Your task to perform on an android device: delete a single message in the gmail app Image 0: 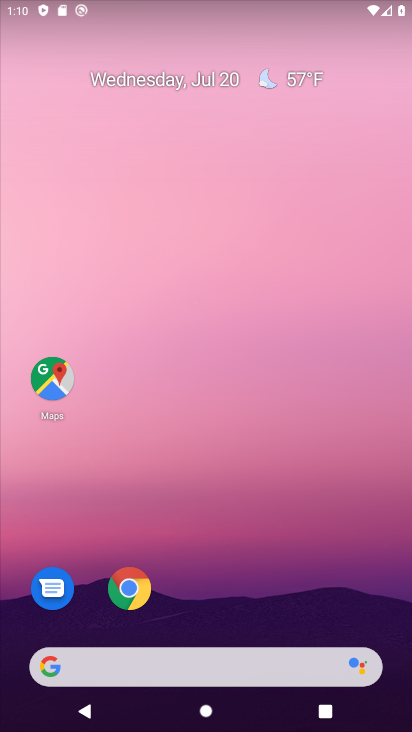
Step 0: drag from (14, 508) to (233, 125)
Your task to perform on an android device: delete a single message in the gmail app Image 1: 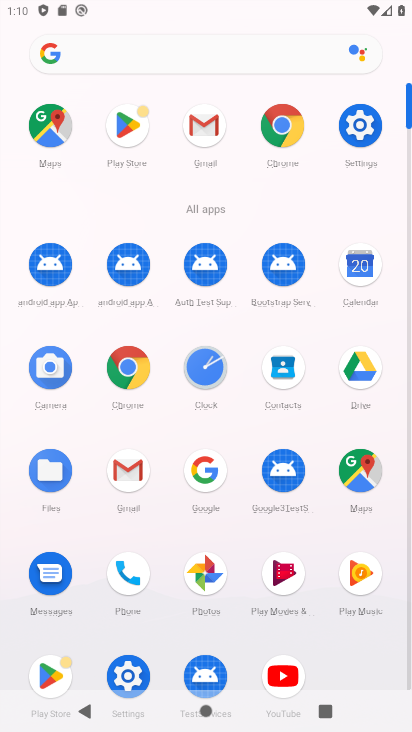
Step 1: click (220, 136)
Your task to perform on an android device: delete a single message in the gmail app Image 2: 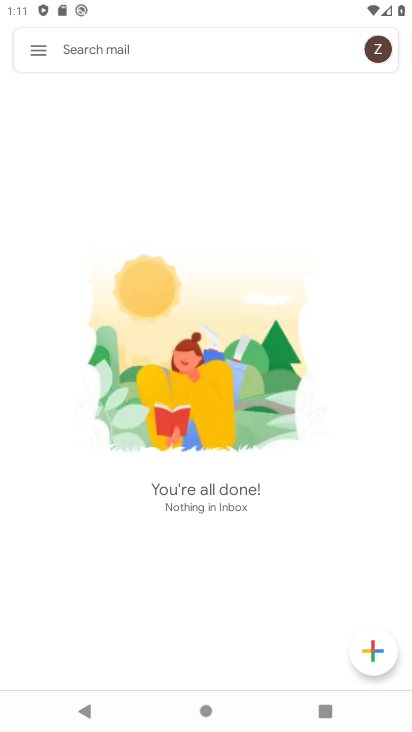
Step 2: task complete